Your task to perform on an android device: When is my next appointment? Image 0: 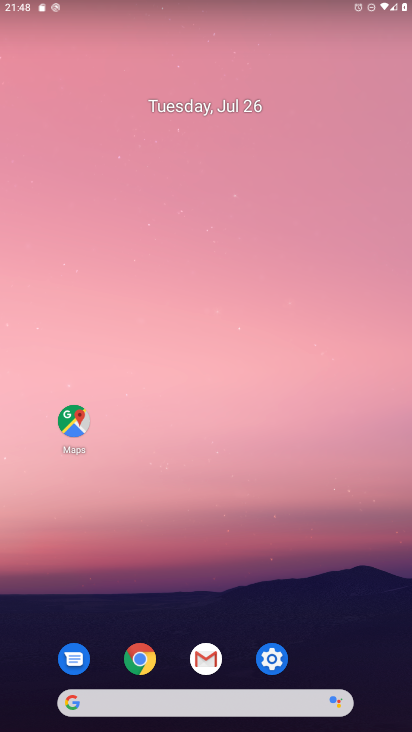
Step 0: drag from (263, 688) to (274, 11)
Your task to perform on an android device: When is my next appointment? Image 1: 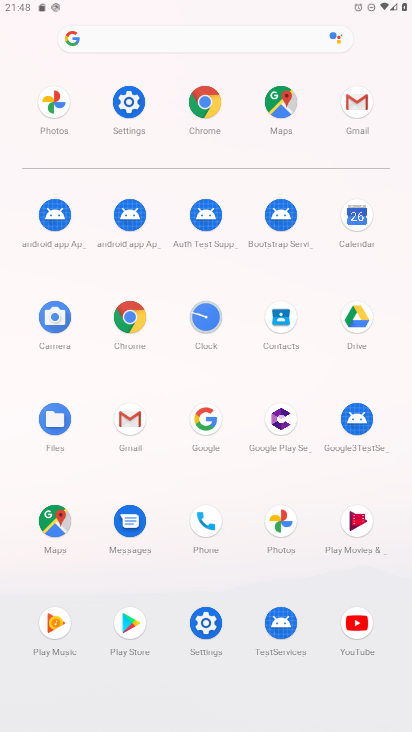
Step 1: click (348, 230)
Your task to perform on an android device: When is my next appointment? Image 2: 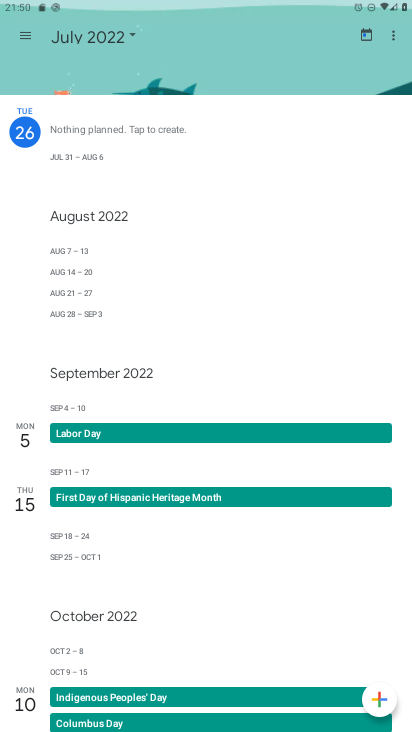
Step 2: task complete